Your task to perform on an android device: Show the shopping cart on target.com. Add "razer kraken" to the cart on target.com Image 0: 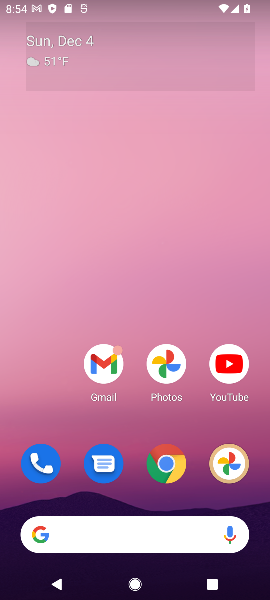
Step 0: click (84, 523)
Your task to perform on an android device: Show the shopping cart on target.com. Add "razer kraken" to the cart on target.com Image 1: 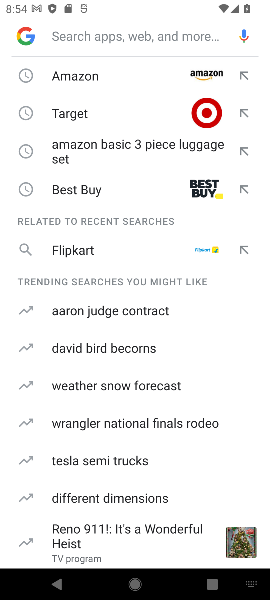
Step 1: click (86, 65)
Your task to perform on an android device: Show the shopping cart on target.com. Add "razer kraken" to the cart on target.com Image 2: 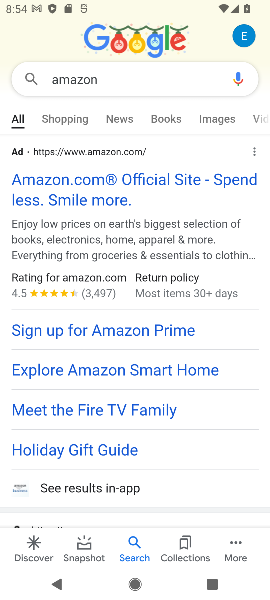
Step 2: click (65, 185)
Your task to perform on an android device: Show the shopping cart on target.com. Add "razer kraken" to the cart on target.com Image 3: 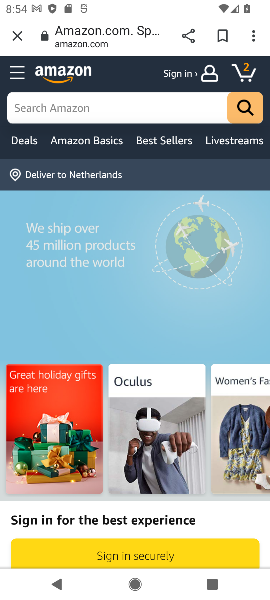
Step 3: task complete